Your task to perform on an android device: open app "Microsoft Excel" (install if not already installed) Image 0: 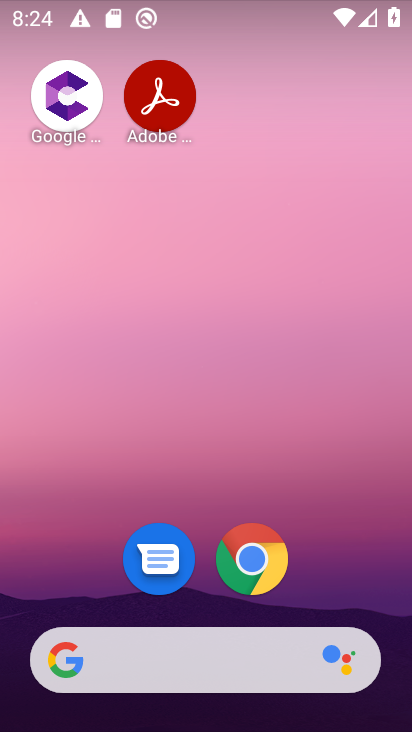
Step 0: drag from (198, 544) to (178, 170)
Your task to perform on an android device: open app "Microsoft Excel" (install if not already installed) Image 1: 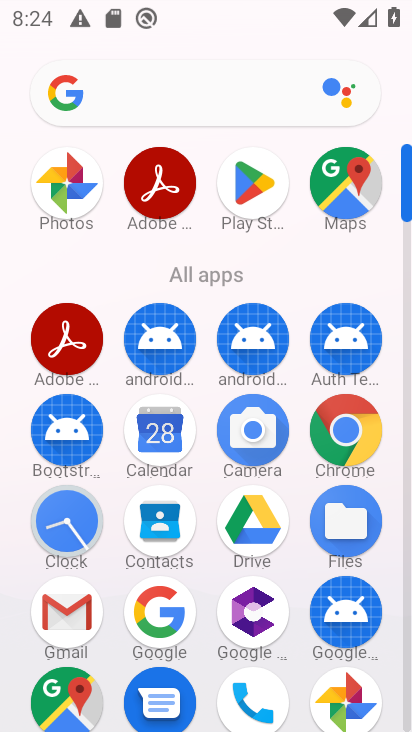
Step 1: click (249, 179)
Your task to perform on an android device: open app "Microsoft Excel" (install if not already installed) Image 2: 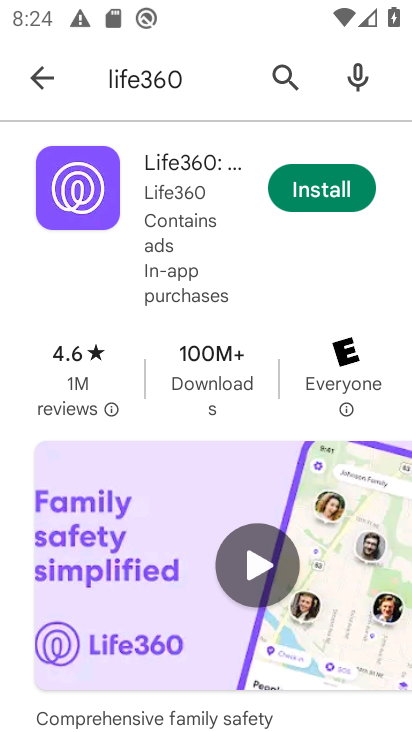
Step 2: click (287, 75)
Your task to perform on an android device: open app "Microsoft Excel" (install if not already installed) Image 3: 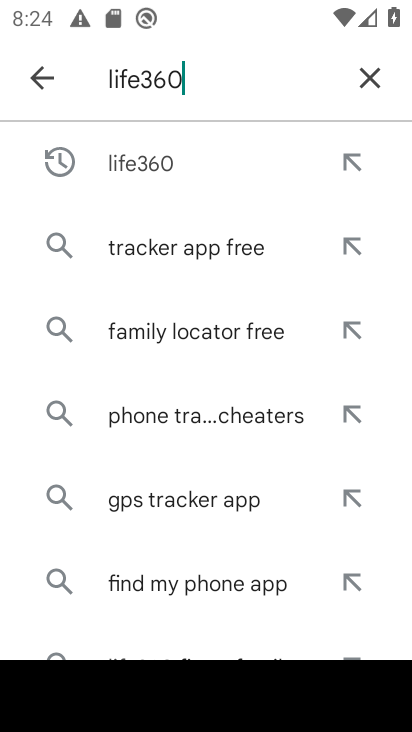
Step 3: click (368, 79)
Your task to perform on an android device: open app "Microsoft Excel" (install if not already installed) Image 4: 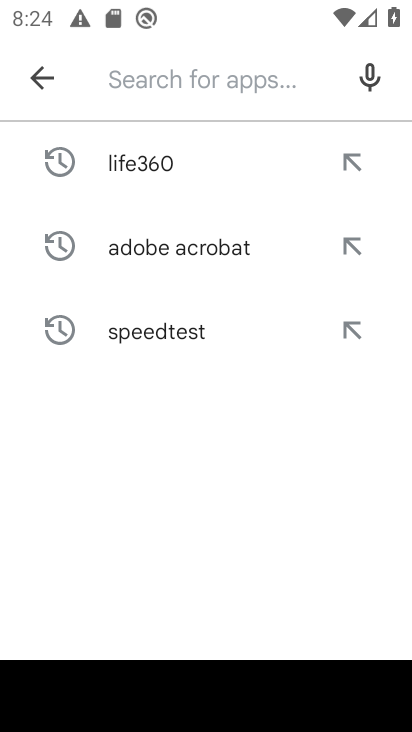
Step 4: type "microsoft excel"
Your task to perform on an android device: open app "Microsoft Excel" (install if not already installed) Image 5: 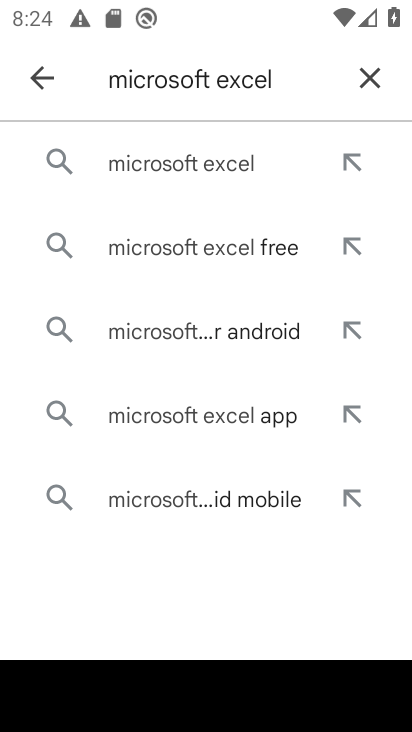
Step 5: click (224, 174)
Your task to perform on an android device: open app "Microsoft Excel" (install if not already installed) Image 6: 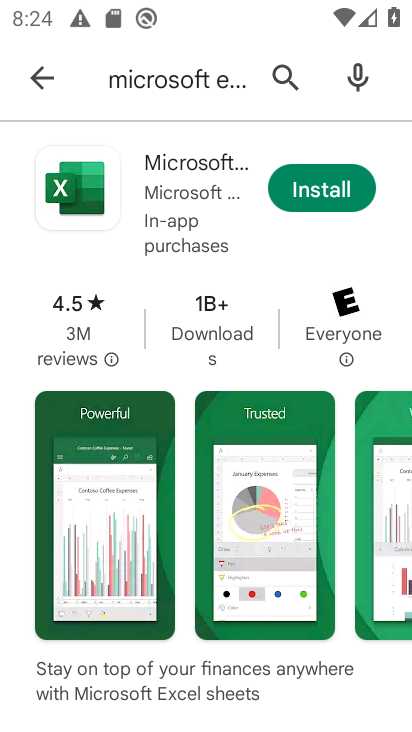
Step 6: click (289, 182)
Your task to perform on an android device: open app "Microsoft Excel" (install if not already installed) Image 7: 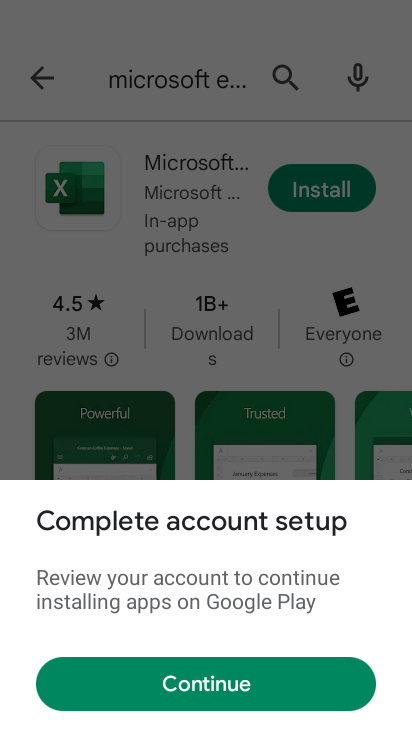
Step 7: click (269, 697)
Your task to perform on an android device: open app "Microsoft Excel" (install if not already installed) Image 8: 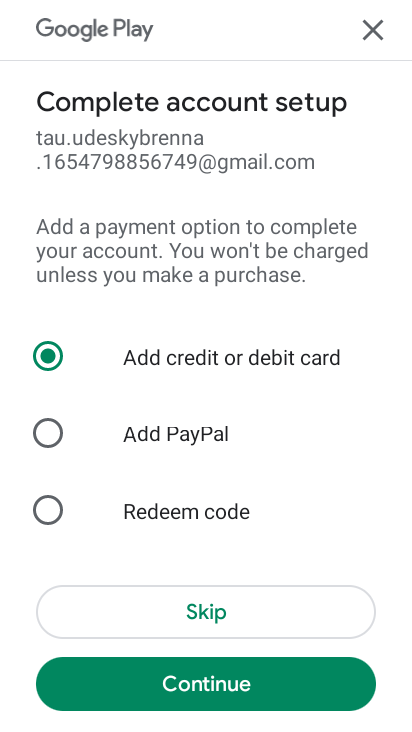
Step 8: click (164, 611)
Your task to perform on an android device: open app "Microsoft Excel" (install if not already installed) Image 9: 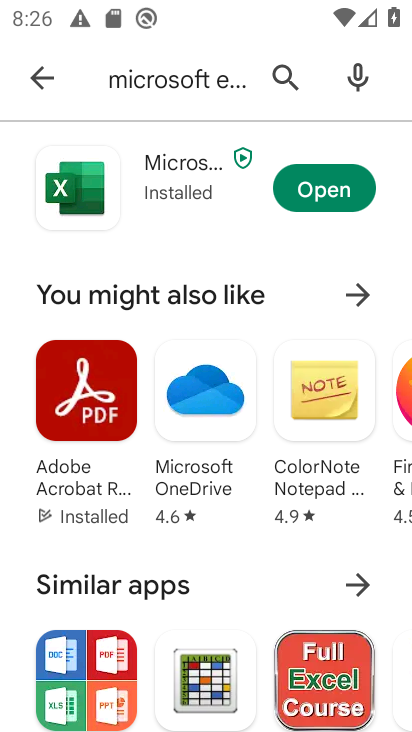
Step 9: click (337, 172)
Your task to perform on an android device: open app "Microsoft Excel" (install if not already installed) Image 10: 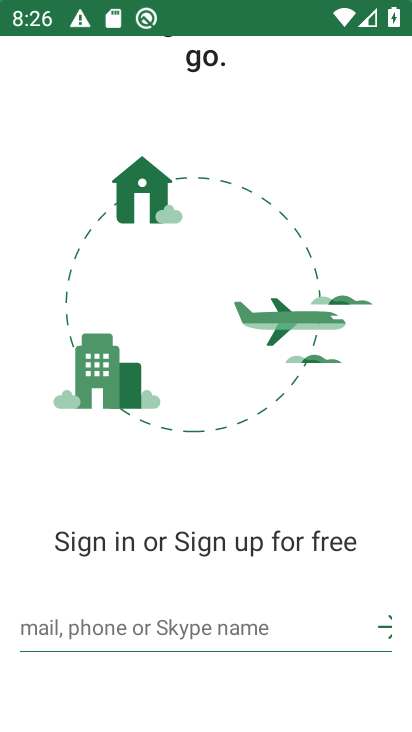
Step 10: task complete